Your task to perform on an android device: Go to CNN.com Image 0: 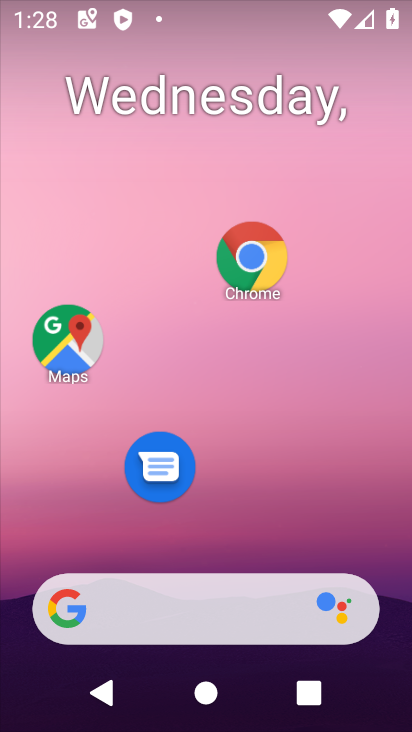
Step 0: press home button
Your task to perform on an android device: Go to CNN.com Image 1: 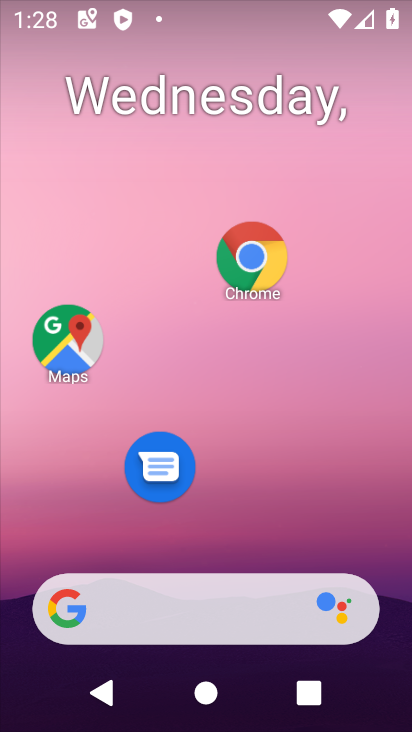
Step 1: click (253, 234)
Your task to perform on an android device: Go to CNN.com Image 2: 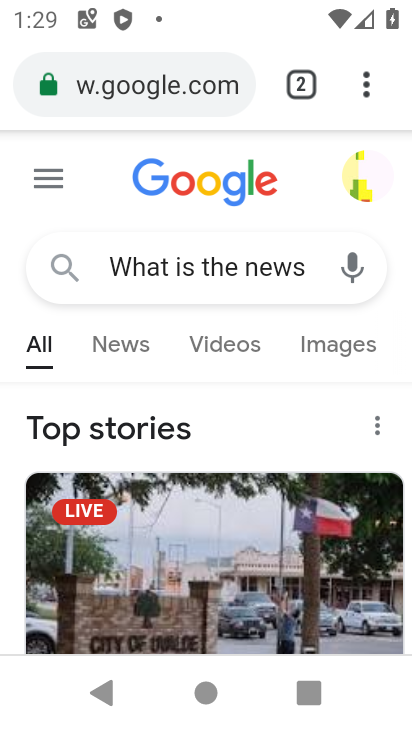
Step 2: click (103, 101)
Your task to perform on an android device: Go to CNN.com Image 3: 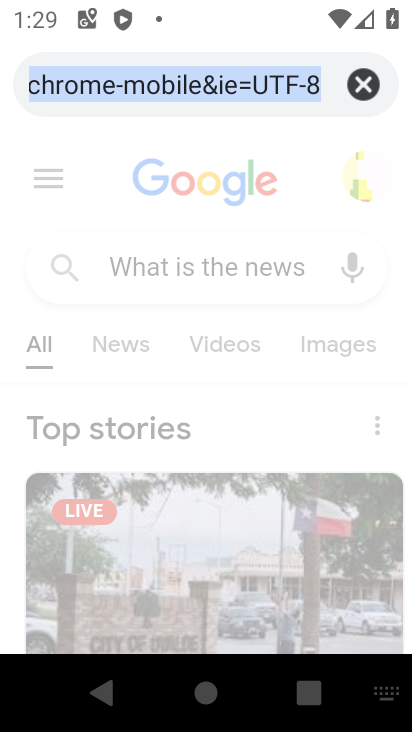
Step 3: click (369, 75)
Your task to perform on an android device: Go to CNN.com Image 4: 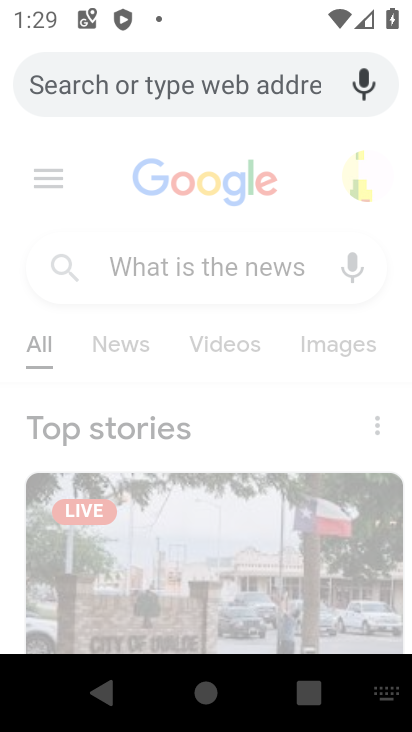
Step 4: type " CNN.com "
Your task to perform on an android device: Go to CNN.com Image 5: 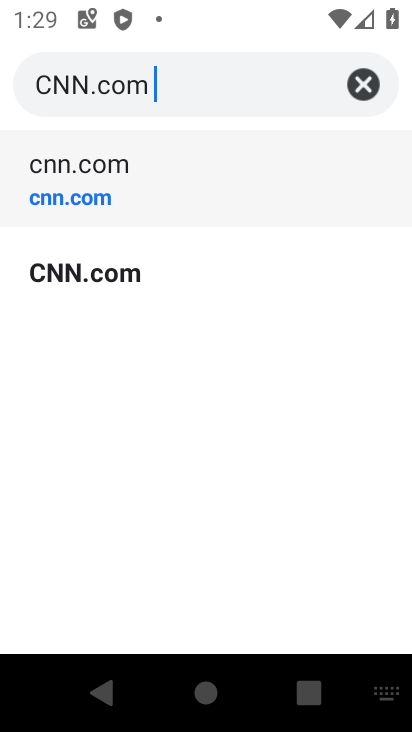
Step 5: type ""
Your task to perform on an android device: Go to CNN.com Image 6: 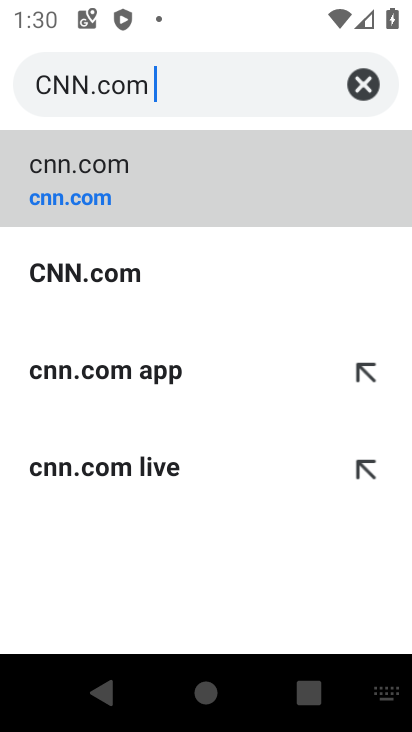
Step 6: click (85, 195)
Your task to perform on an android device: Go to CNN.com Image 7: 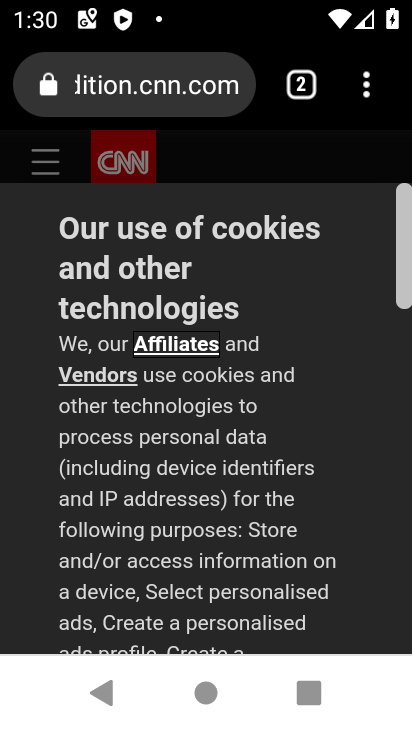
Step 7: task complete